Your task to perform on an android device: Search for sushi restaurants on Maps Image 0: 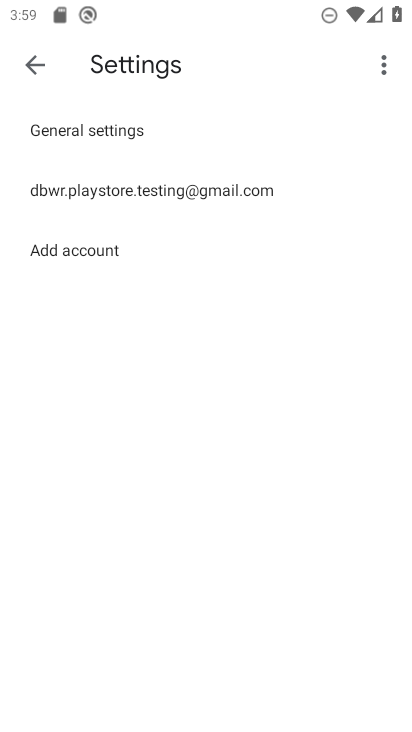
Step 0: press home button
Your task to perform on an android device: Search for sushi restaurants on Maps Image 1: 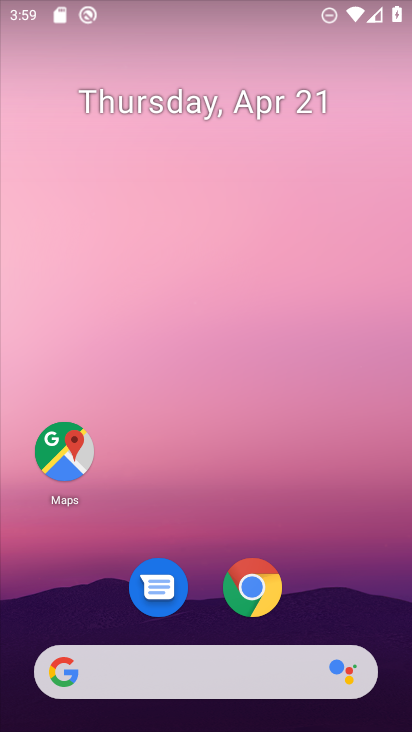
Step 1: click (60, 452)
Your task to perform on an android device: Search for sushi restaurants on Maps Image 2: 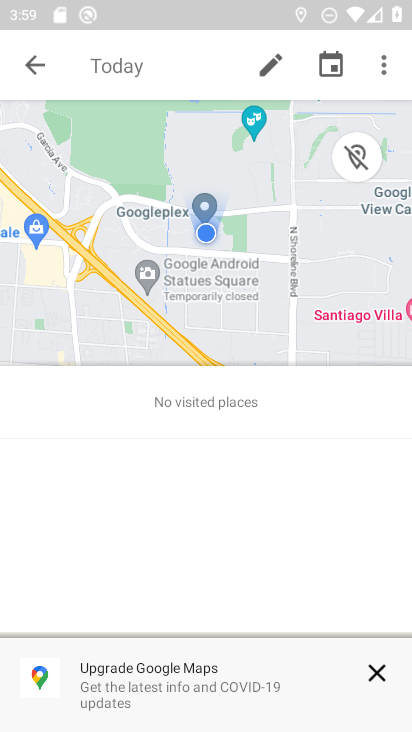
Step 2: click (33, 70)
Your task to perform on an android device: Search for sushi restaurants on Maps Image 3: 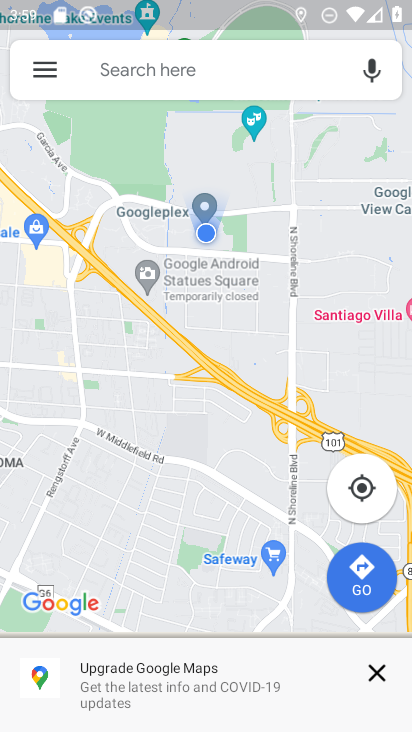
Step 3: click (130, 69)
Your task to perform on an android device: Search for sushi restaurants on Maps Image 4: 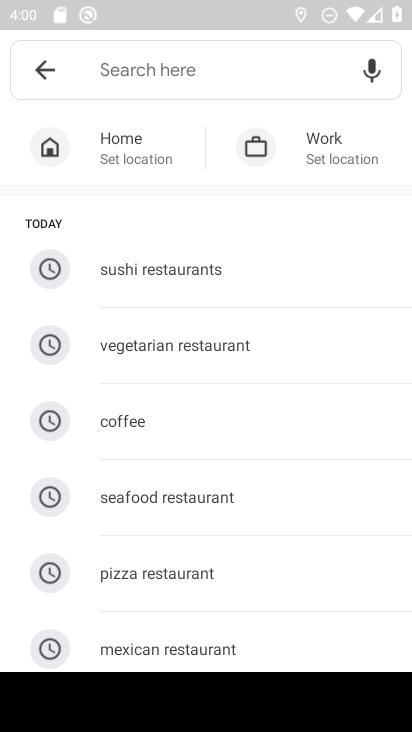
Step 4: type "sushi restaurant"
Your task to perform on an android device: Search for sushi restaurants on Maps Image 5: 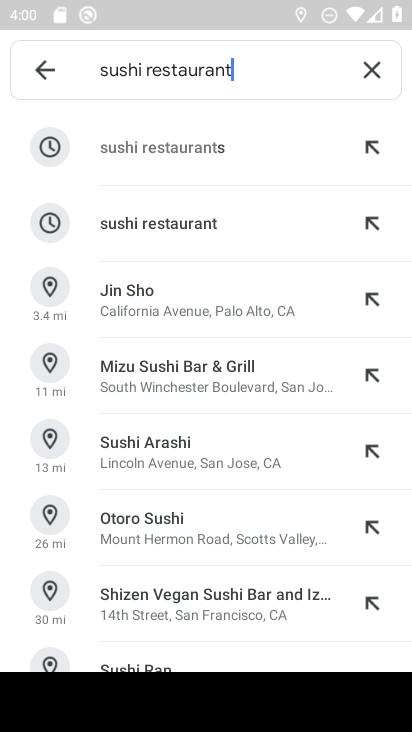
Step 5: click (172, 145)
Your task to perform on an android device: Search for sushi restaurants on Maps Image 6: 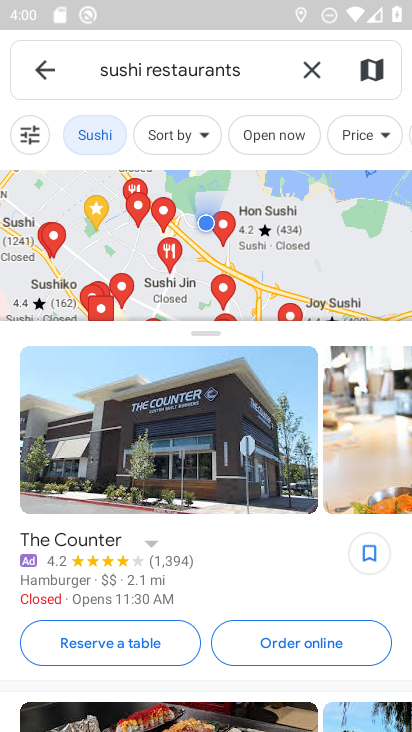
Step 6: task complete